Your task to perform on an android device: Go to Android settings Image 0: 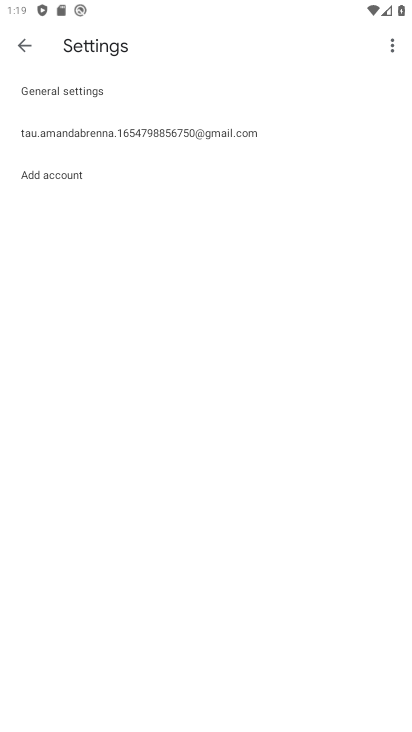
Step 0: press home button
Your task to perform on an android device: Go to Android settings Image 1: 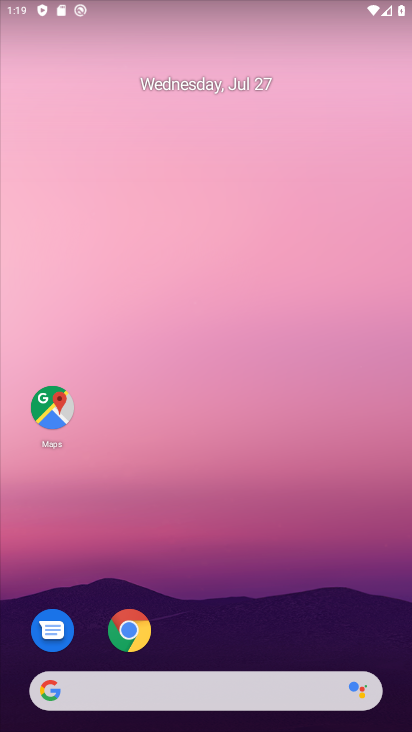
Step 1: click (306, 419)
Your task to perform on an android device: Go to Android settings Image 2: 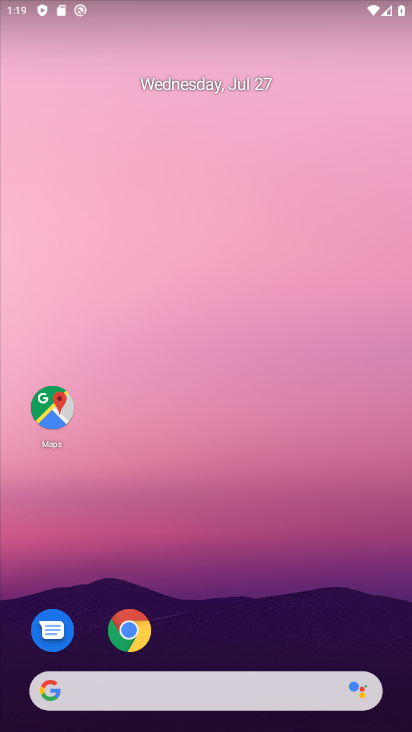
Step 2: drag from (219, 618) to (190, 242)
Your task to perform on an android device: Go to Android settings Image 3: 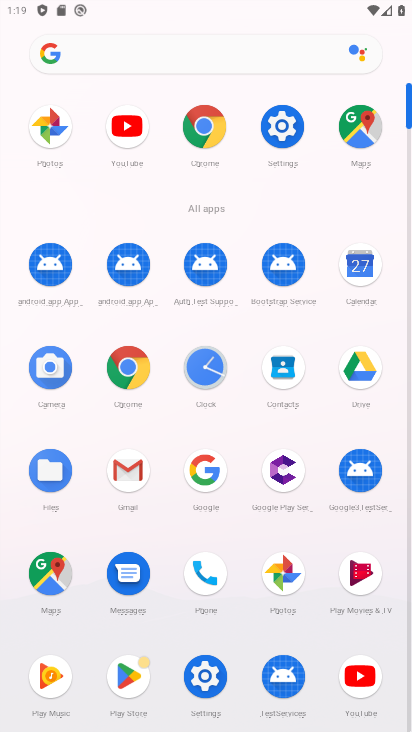
Step 3: click (279, 138)
Your task to perform on an android device: Go to Android settings Image 4: 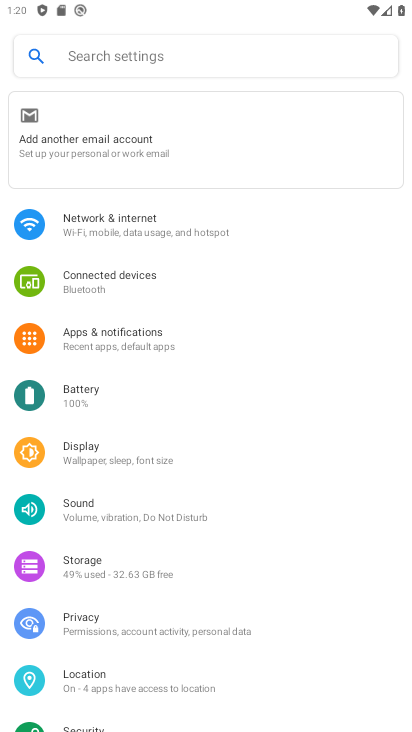
Step 4: task complete